Your task to perform on an android device: Go to Amazon Image 0: 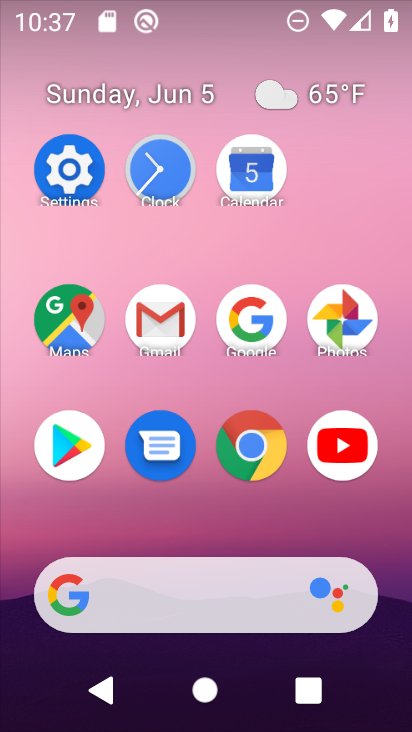
Step 0: click (274, 447)
Your task to perform on an android device: Go to Amazon Image 1: 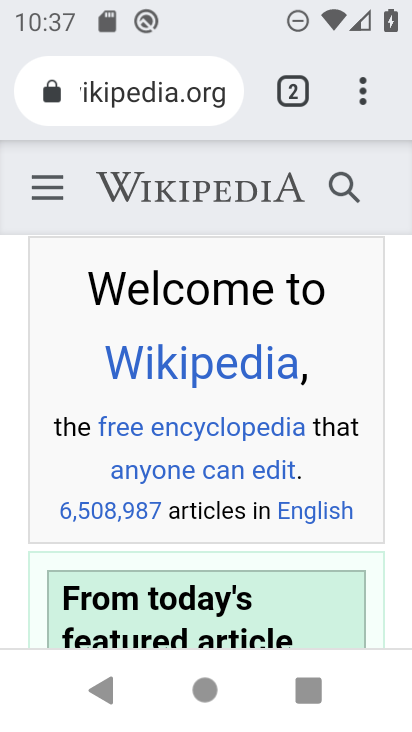
Step 1: click (289, 68)
Your task to perform on an android device: Go to Amazon Image 2: 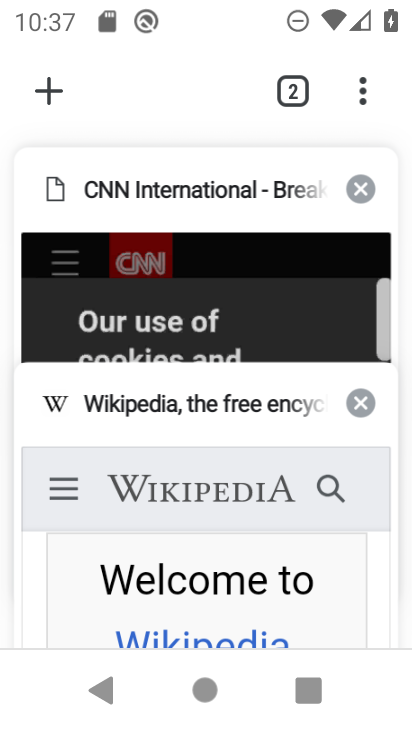
Step 2: click (57, 110)
Your task to perform on an android device: Go to Amazon Image 3: 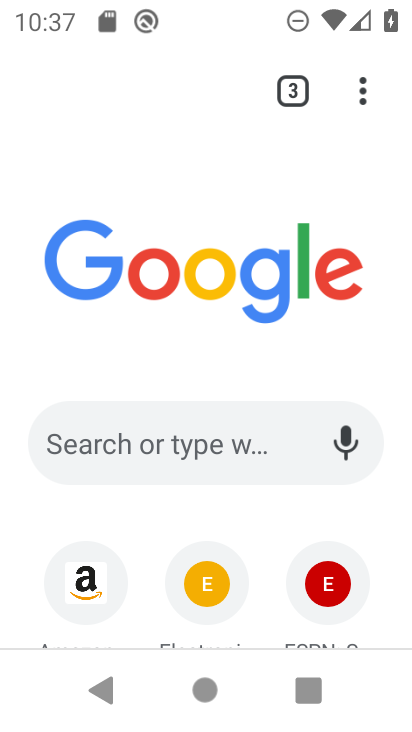
Step 3: click (97, 588)
Your task to perform on an android device: Go to Amazon Image 4: 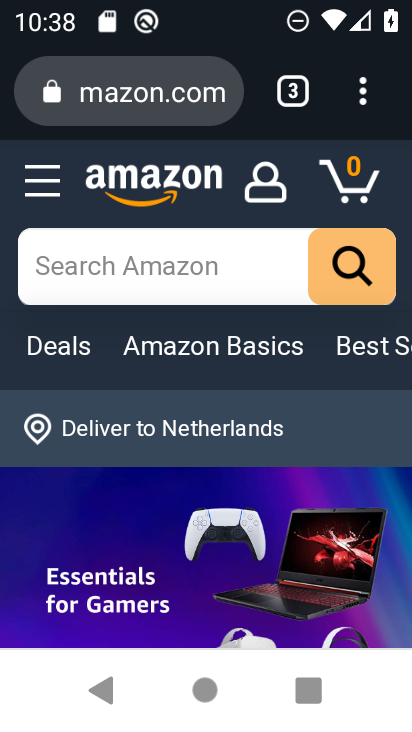
Step 4: task complete